Your task to perform on an android device: Check the weather Image 0: 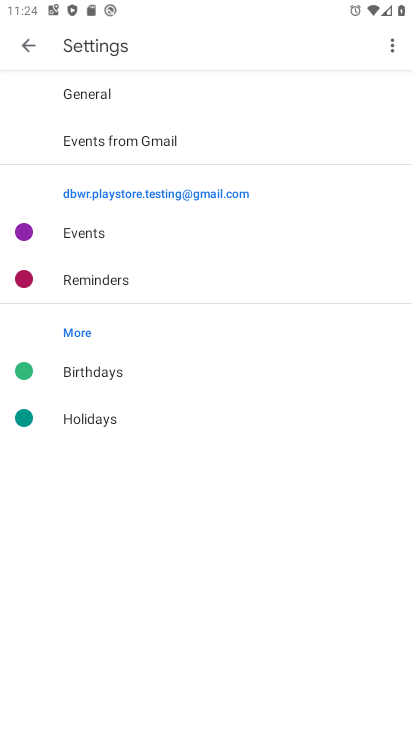
Step 0: press home button
Your task to perform on an android device: Check the weather Image 1: 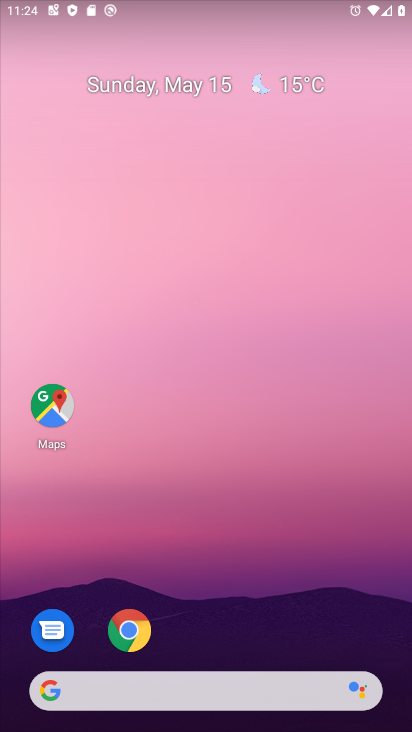
Step 1: click (260, 83)
Your task to perform on an android device: Check the weather Image 2: 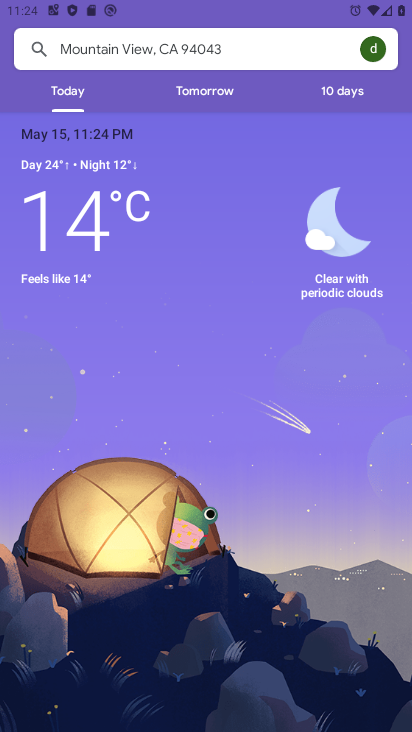
Step 2: task complete